Your task to perform on an android device: What's on my calendar tomorrow? Image 0: 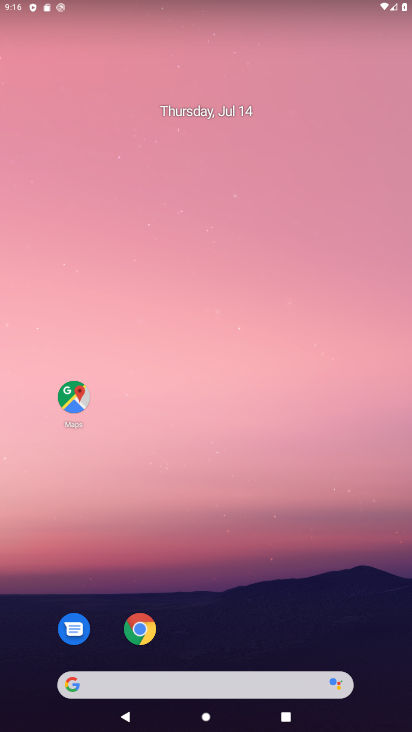
Step 0: drag from (237, 642) to (262, 185)
Your task to perform on an android device: What's on my calendar tomorrow? Image 1: 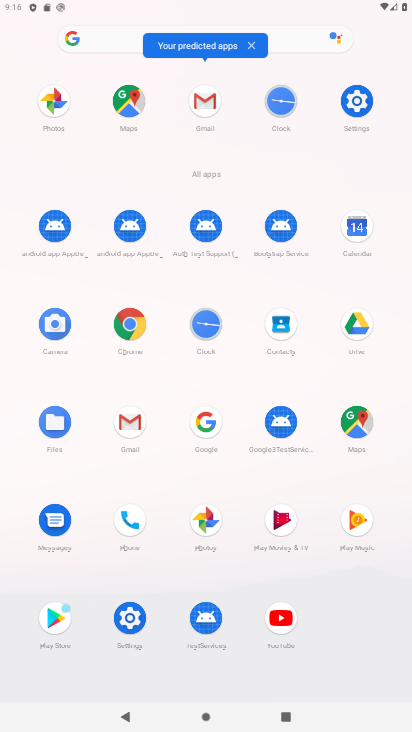
Step 1: click (358, 229)
Your task to perform on an android device: What's on my calendar tomorrow? Image 2: 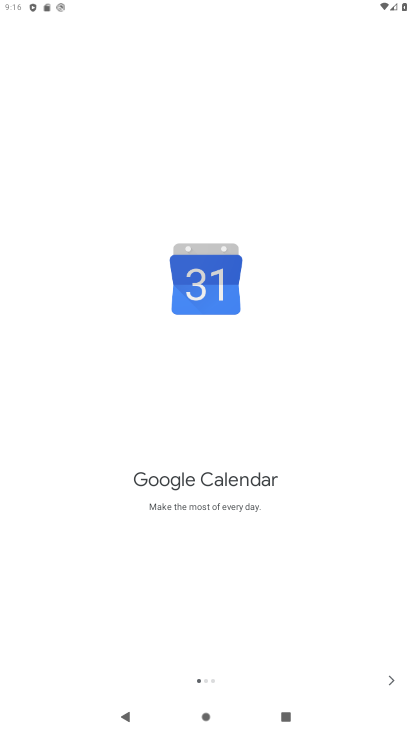
Step 2: click (385, 670)
Your task to perform on an android device: What's on my calendar tomorrow? Image 3: 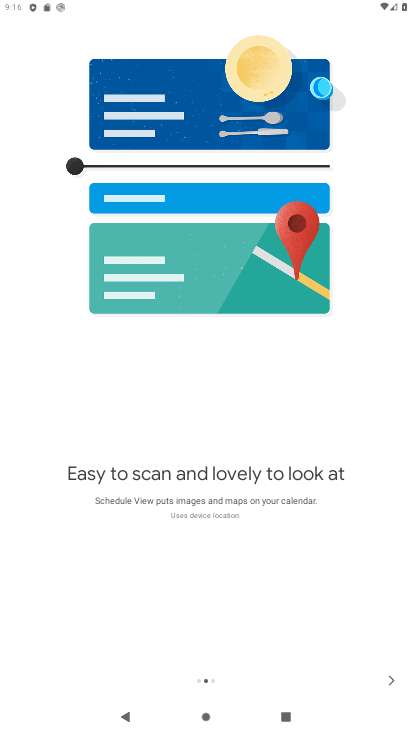
Step 3: click (390, 682)
Your task to perform on an android device: What's on my calendar tomorrow? Image 4: 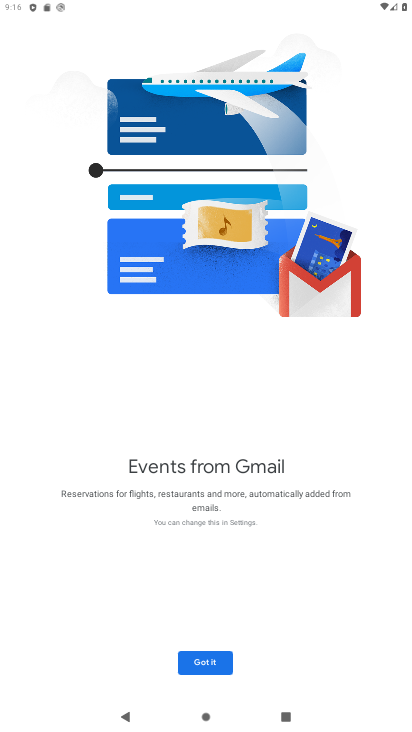
Step 4: click (210, 661)
Your task to perform on an android device: What's on my calendar tomorrow? Image 5: 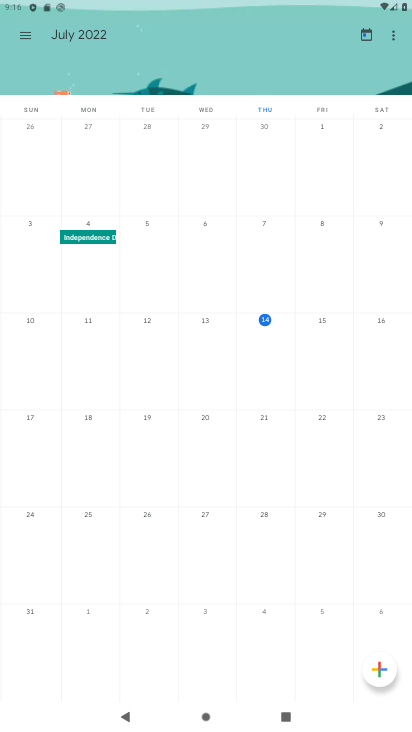
Step 5: click (322, 320)
Your task to perform on an android device: What's on my calendar tomorrow? Image 6: 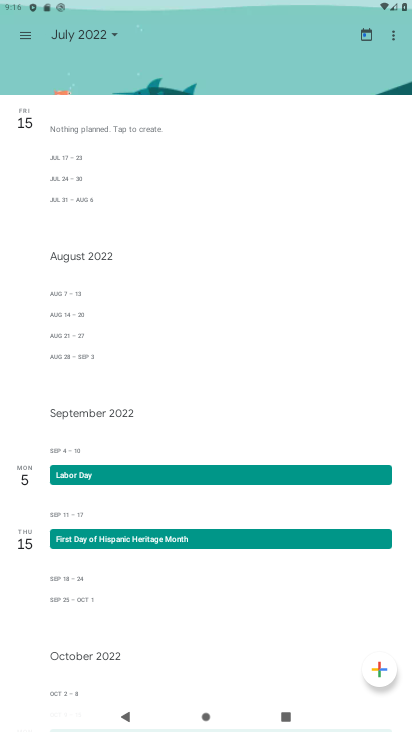
Step 6: task complete